Your task to perform on an android device: uninstall "Google Docs" Image 0: 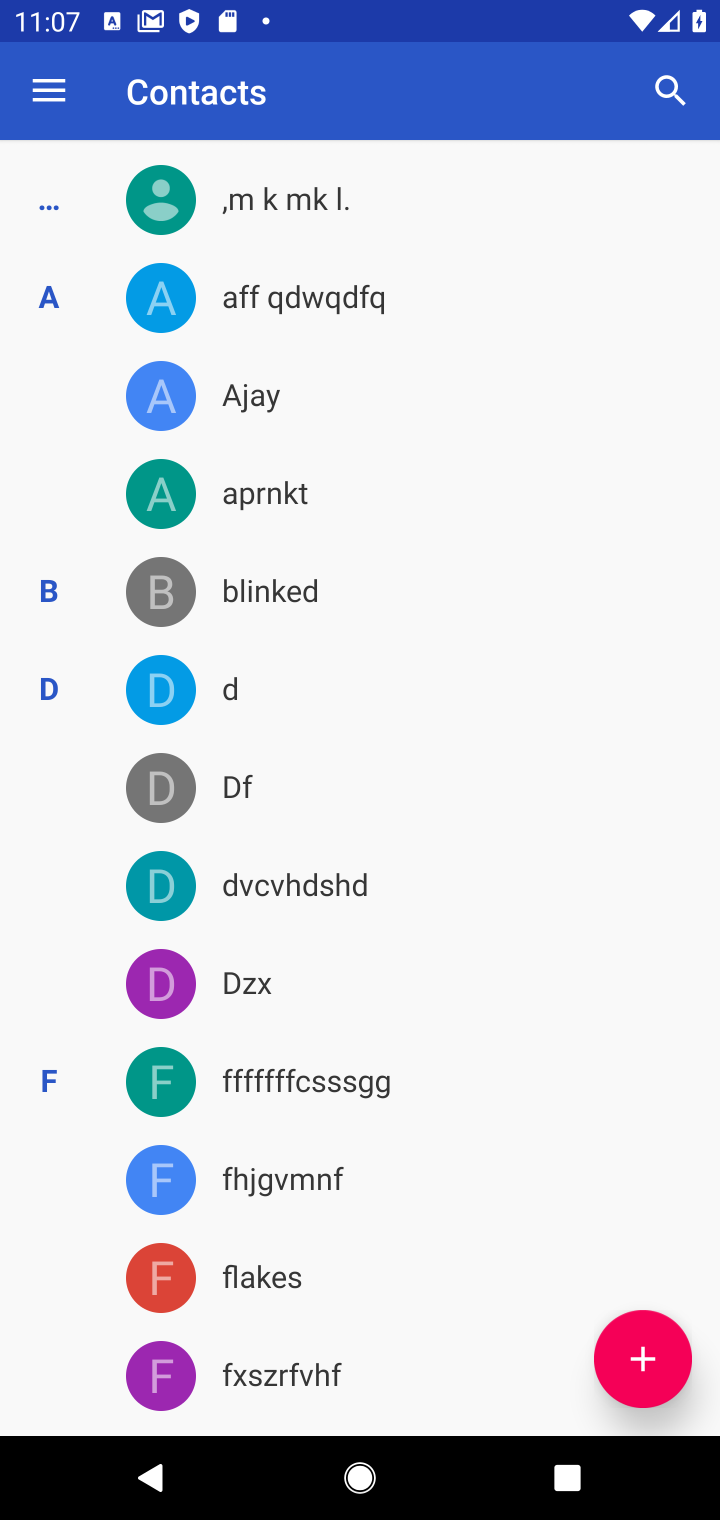
Step 0: press home button
Your task to perform on an android device: uninstall "Google Docs" Image 1: 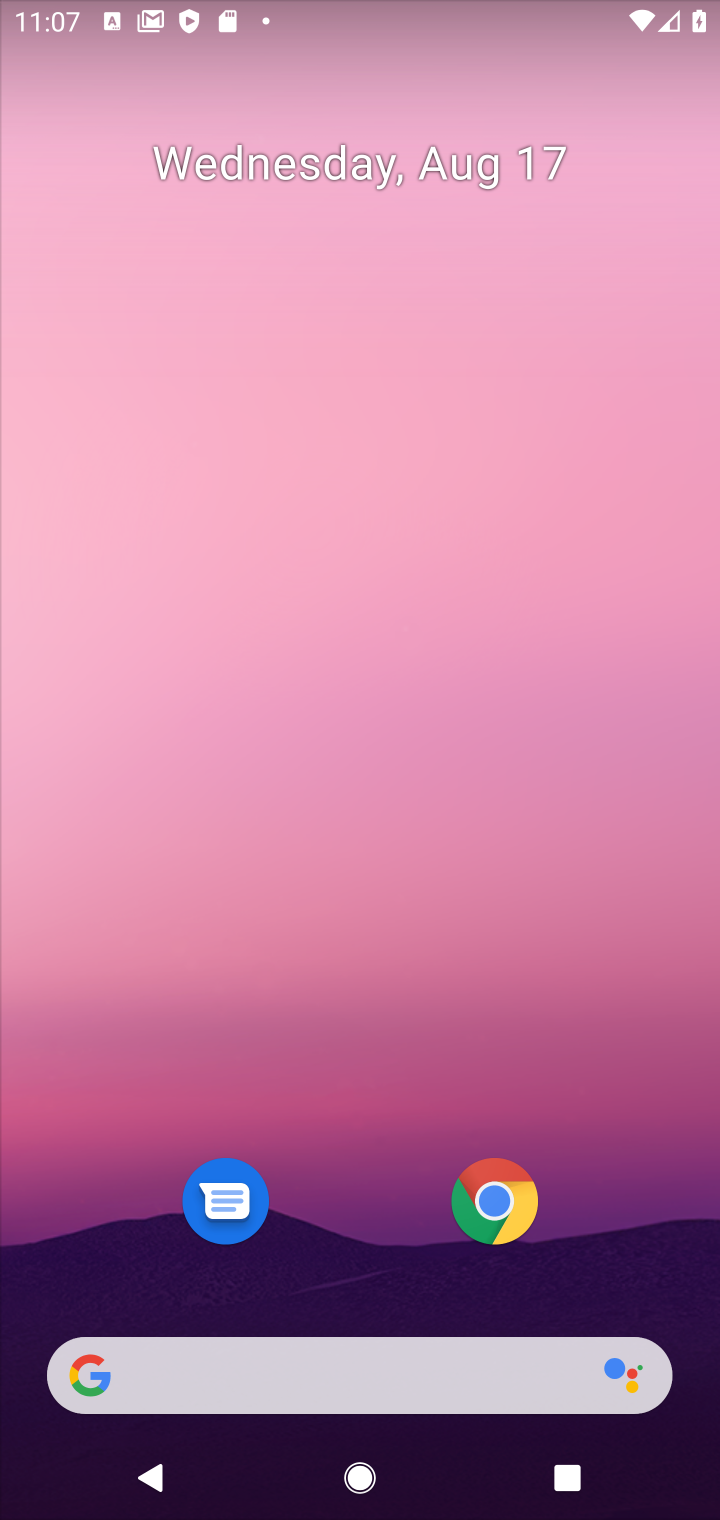
Step 1: drag from (350, 1183) to (408, 460)
Your task to perform on an android device: uninstall "Google Docs" Image 2: 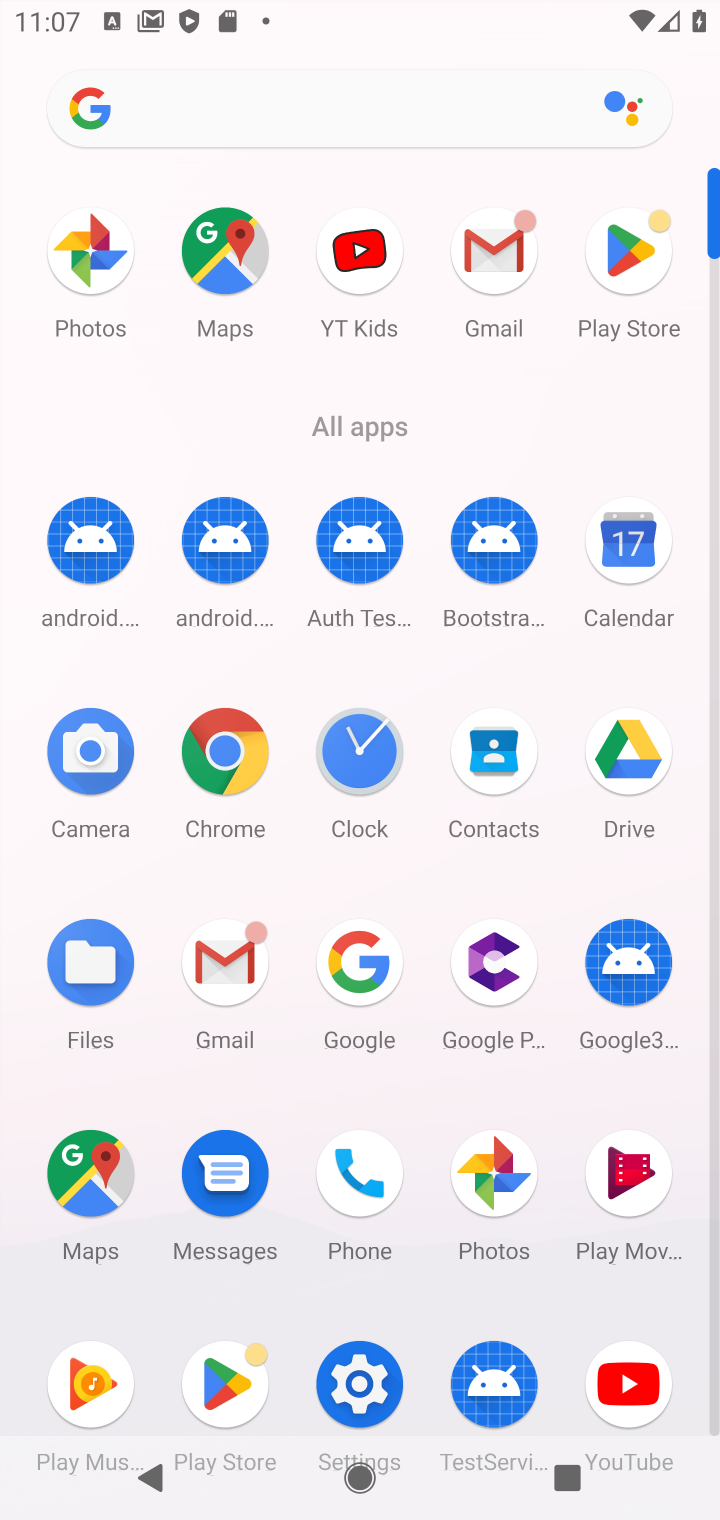
Step 2: click (655, 265)
Your task to perform on an android device: uninstall "Google Docs" Image 3: 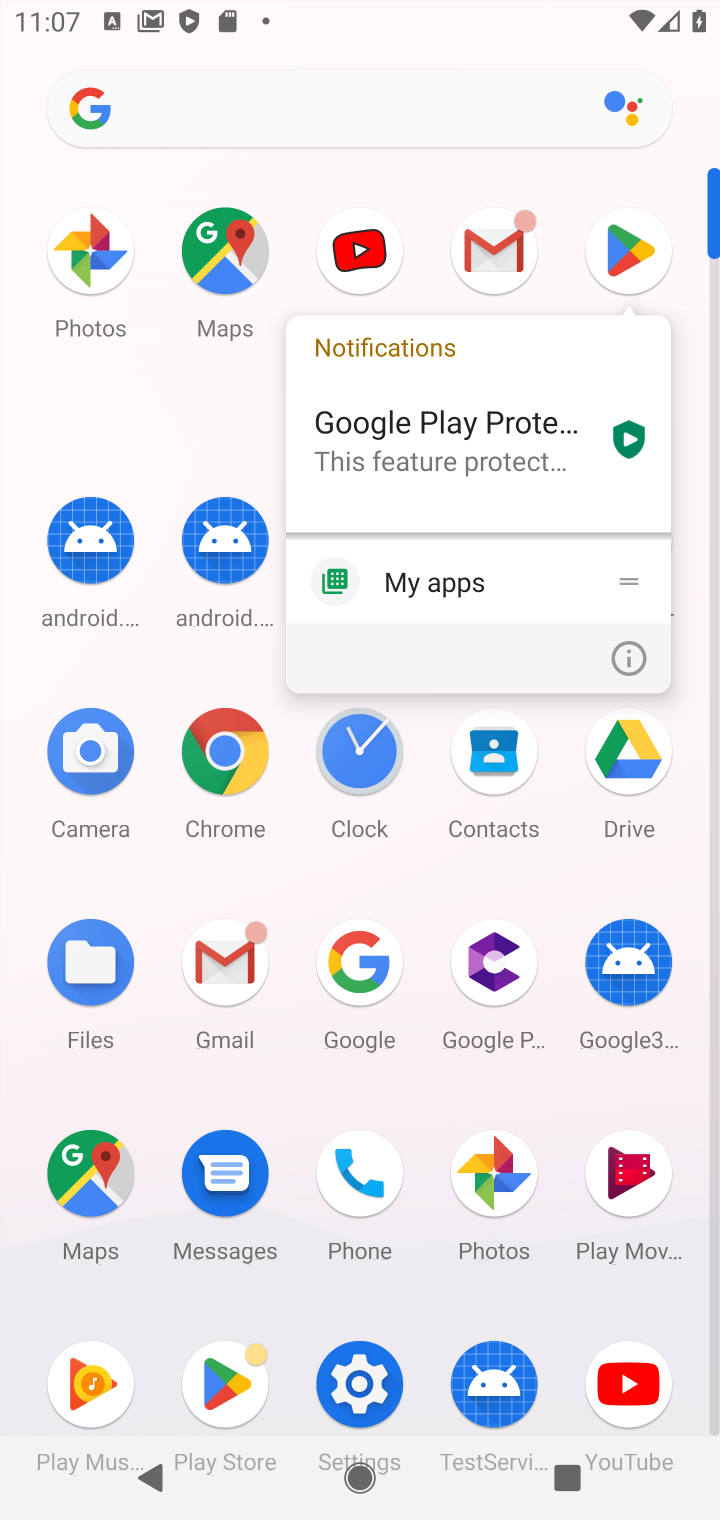
Step 3: click (619, 258)
Your task to perform on an android device: uninstall "Google Docs" Image 4: 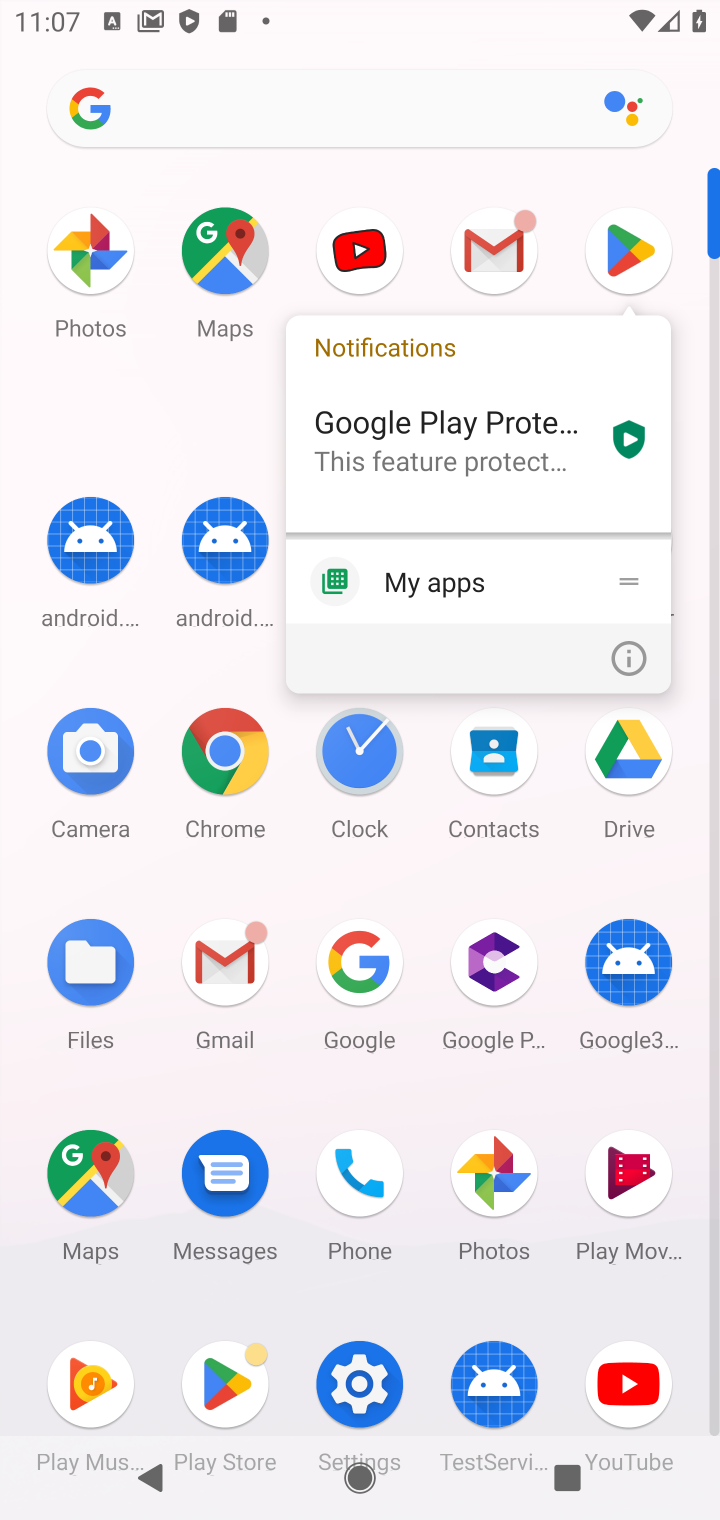
Step 4: click (611, 261)
Your task to perform on an android device: uninstall "Google Docs" Image 5: 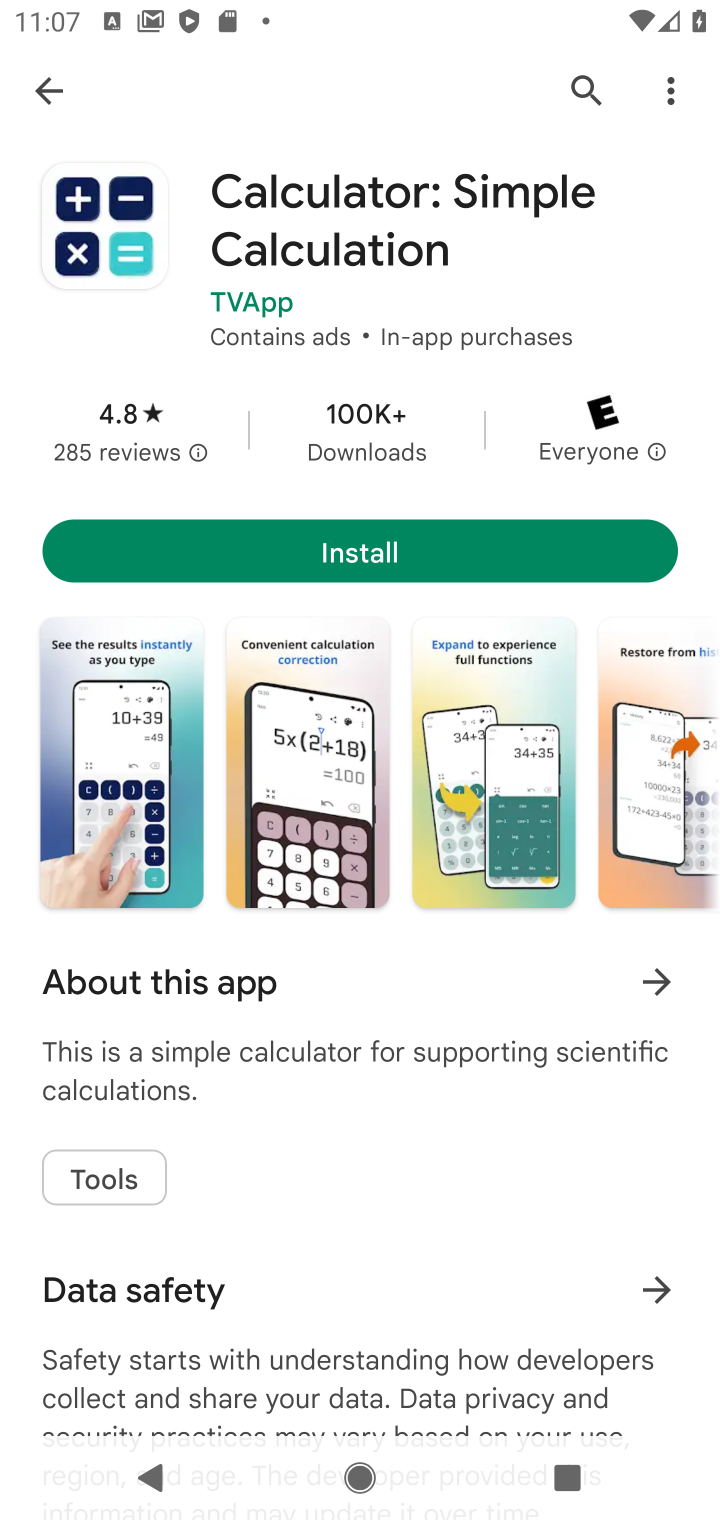
Step 5: click (47, 75)
Your task to perform on an android device: uninstall "Google Docs" Image 6: 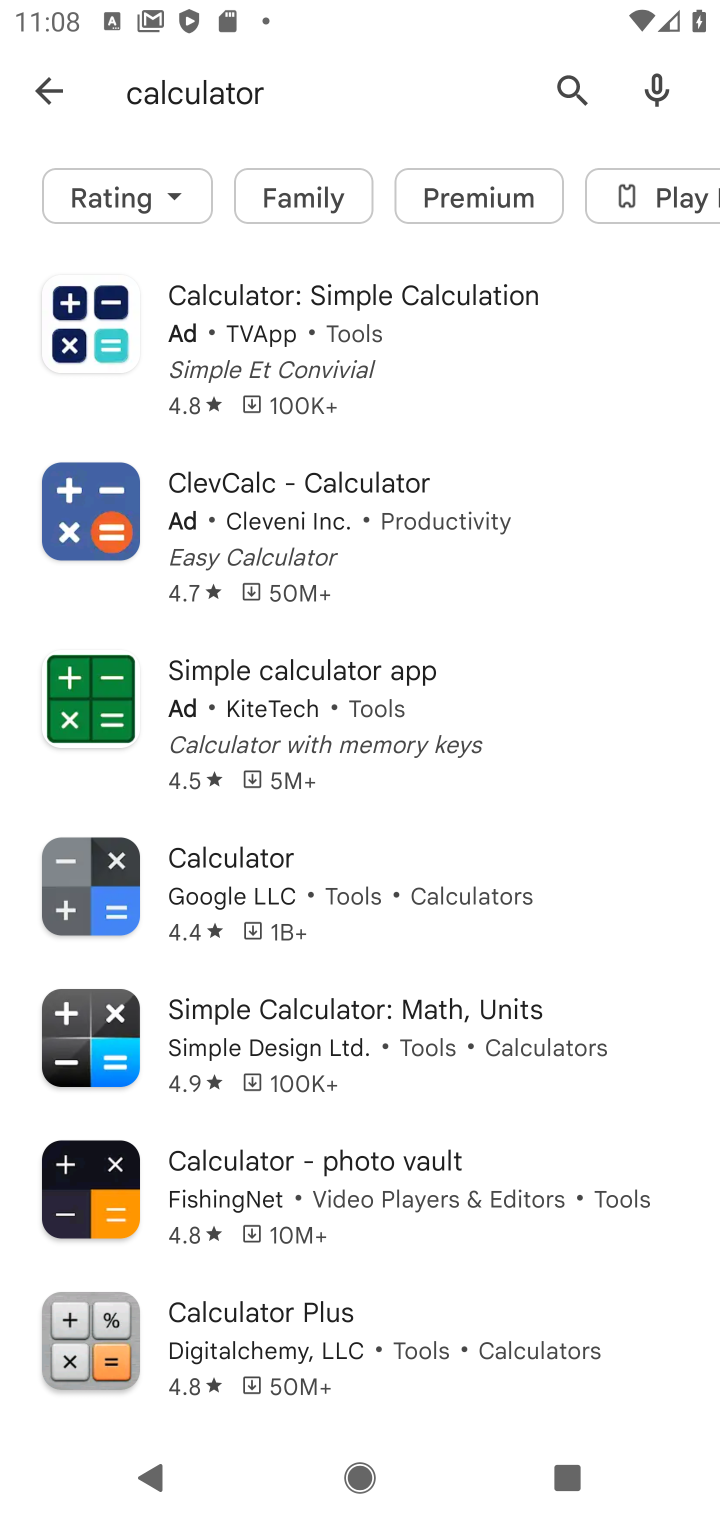
Step 6: click (285, 91)
Your task to perform on an android device: uninstall "Google Docs" Image 7: 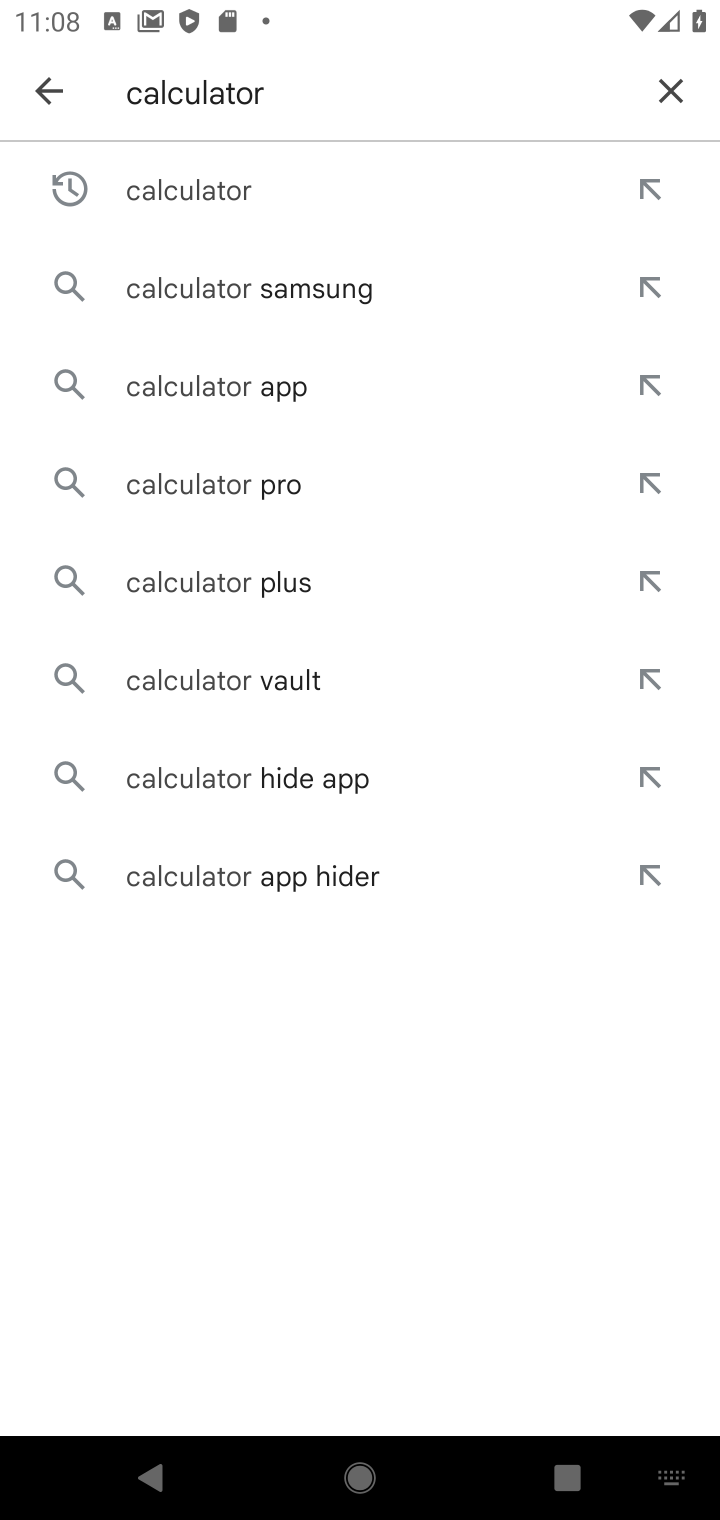
Step 7: click (670, 83)
Your task to perform on an android device: uninstall "Google Docs" Image 8: 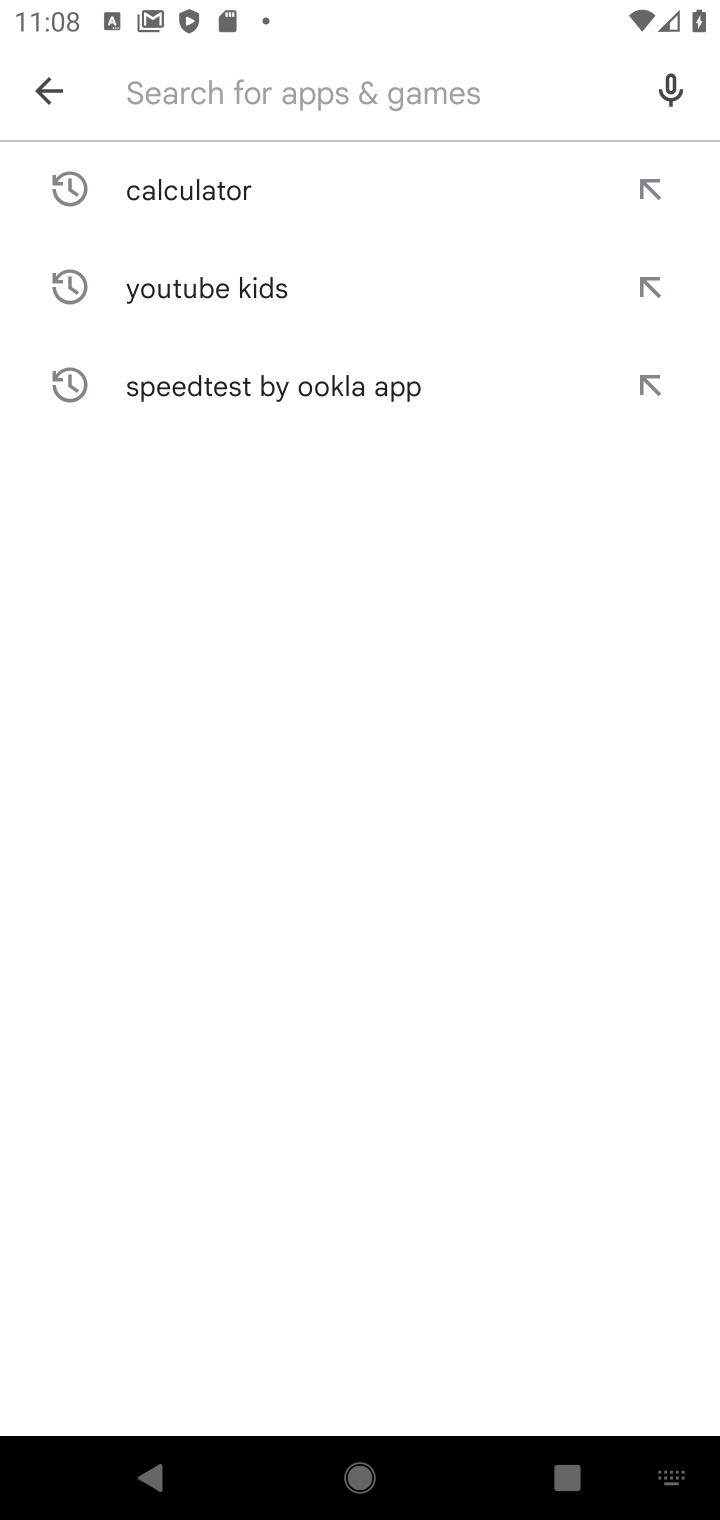
Step 8: type "google docs"
Your task to perform on an android device: uninstall "Google Docs" Image 9: 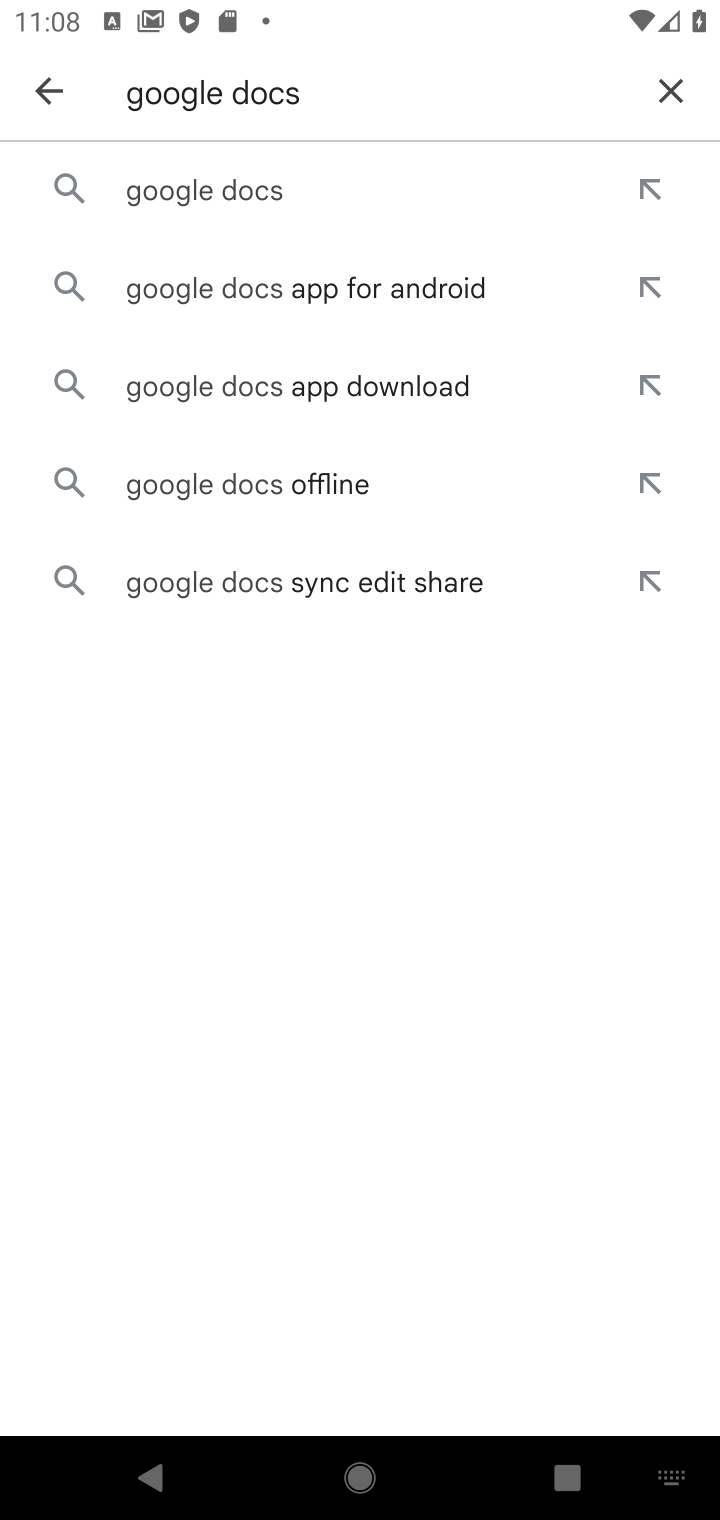
Step 9: click (240, 204)
Your task to perform on an android device: uninstall "Google Docs" Image 10: 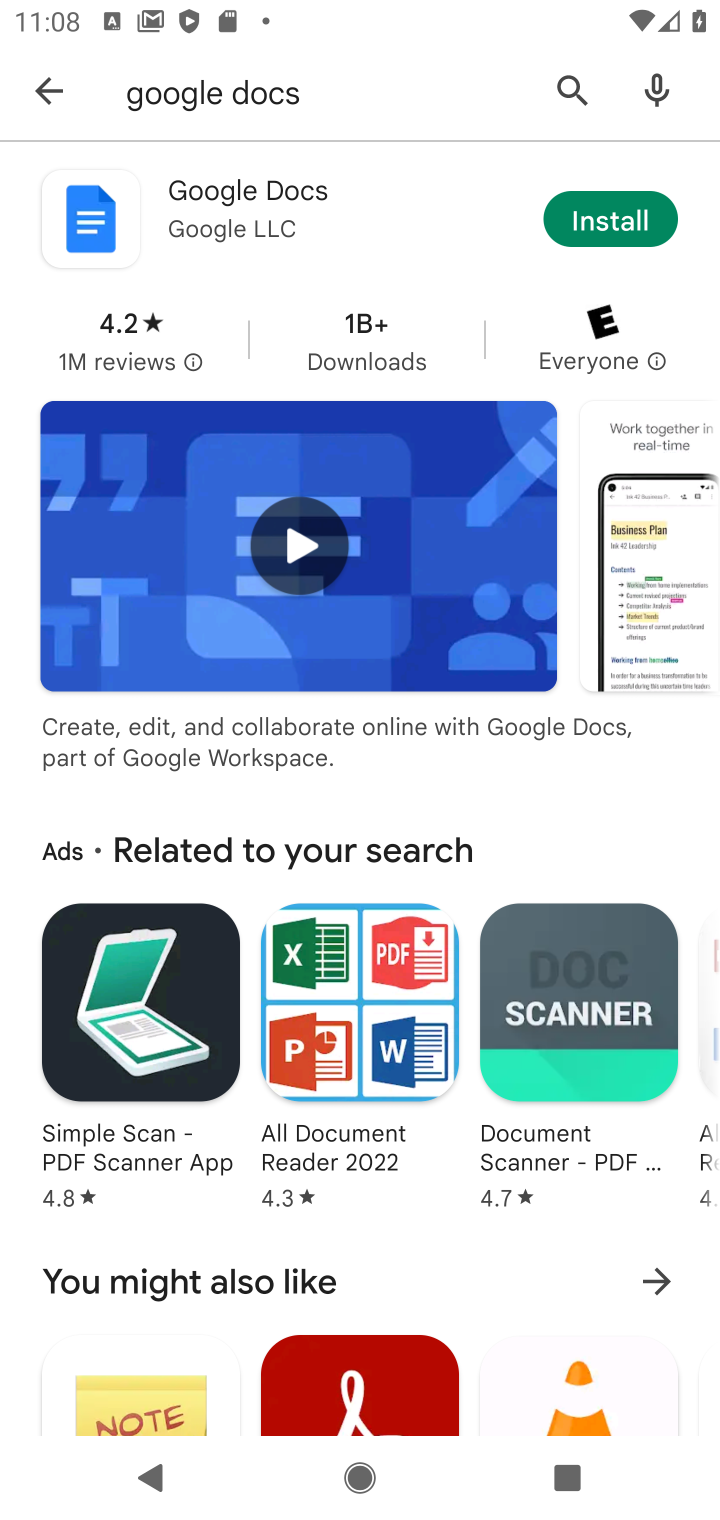
Step 10: task complete